Your task to perform on an android device: check storage Image 0: 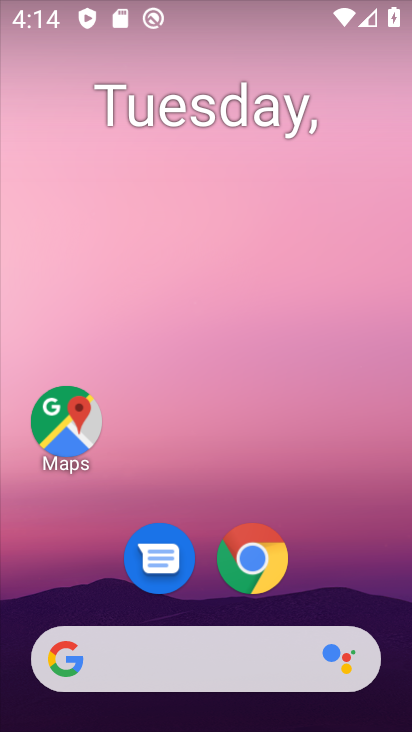
Step 0: drag from (155, 727) to (155, 53)
Your task to perform on an android device: check storage Image 1: 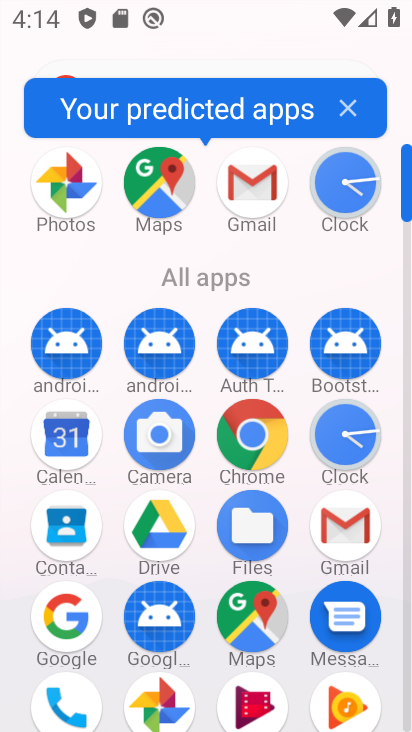
Step 1: drag from (110, 673) to (163, 184)
Your task to perform on an android device: check storage Image 2: 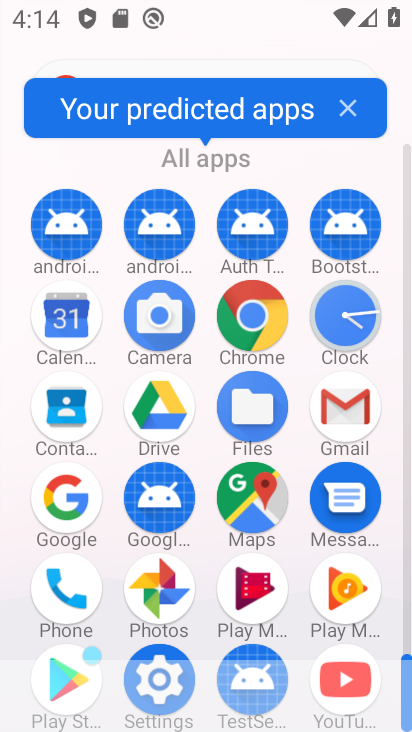
Step 2: click (146, 659)
Your task to perform on an android device: check storage Image 3: 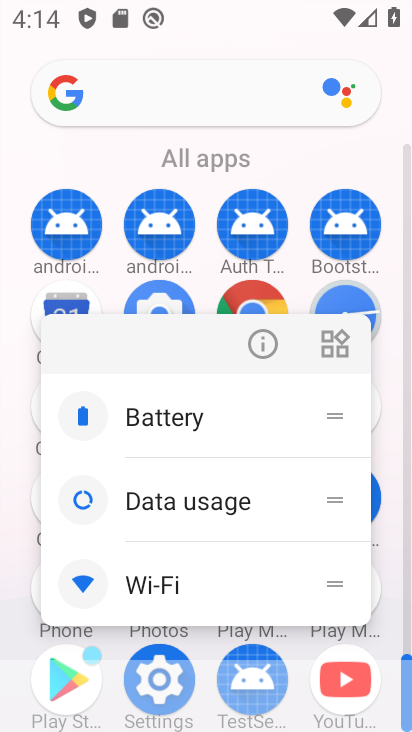
Step 3: click (151, 665)
Your task to perform on an android device: check storage Image 4: 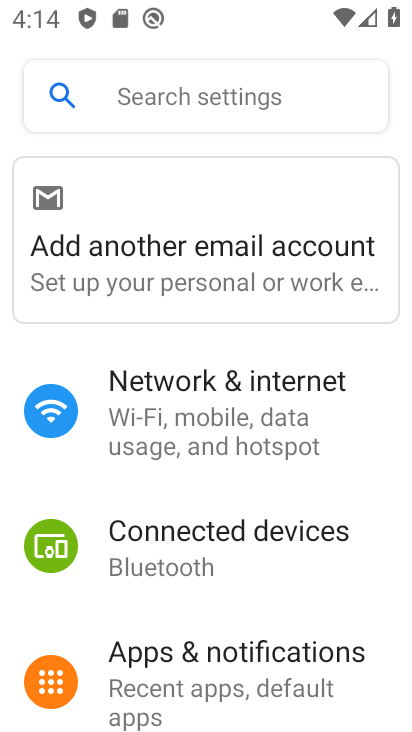
Step 4: drag from (236, 574) to (258, 100)
Your task to perform on an android device: check storage Image 5: 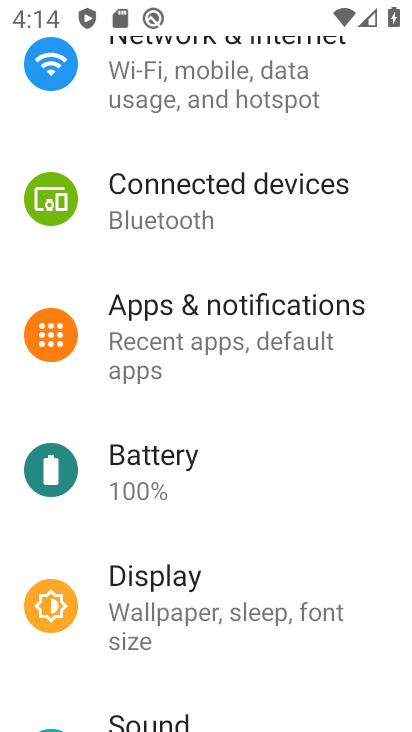
Step 5: drag from (238, 641) to (261, 180)
Your task to perform on an android device: check storage Image 6: 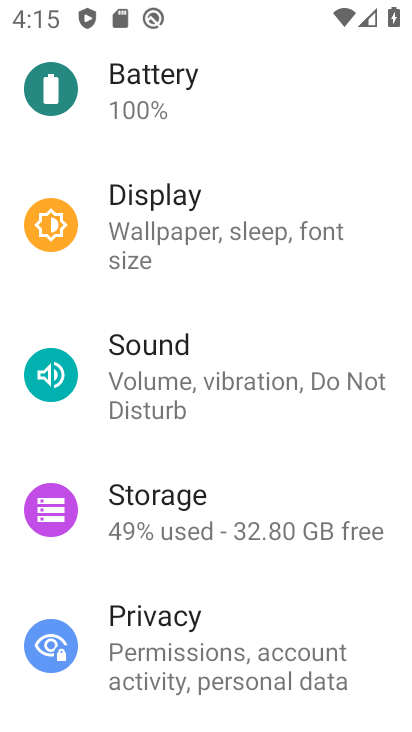
Step 6: click (201, 515)
Your task to perform on an android device: check storage Image 7: 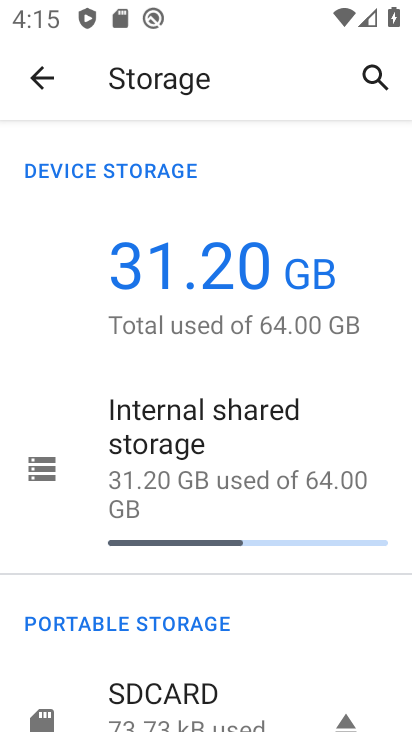
Step 7: task complete